Your task to perform on an android device: install app "NewsBreak: Local News & Alerts" Image 0: 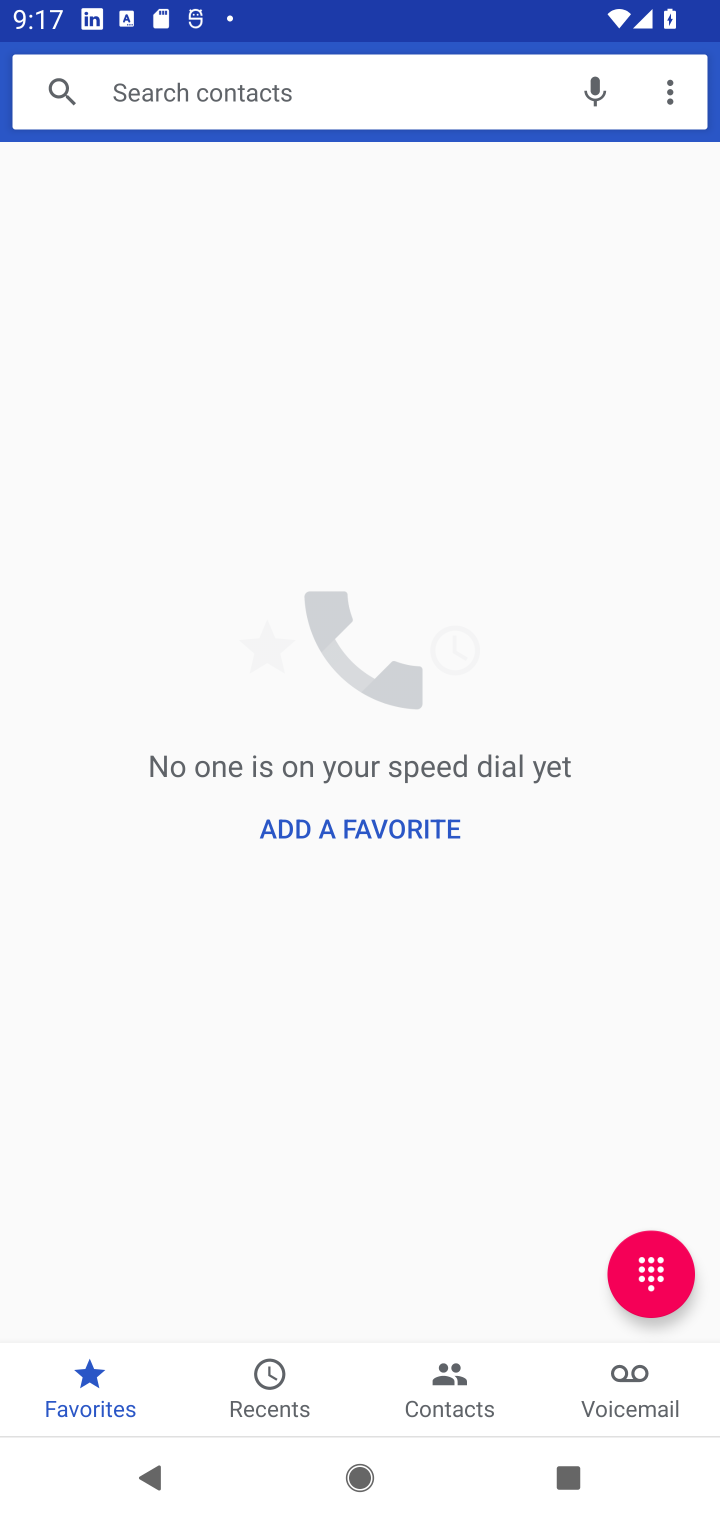
Step 0: press home button
Your task to perform on an android device: install app "NewsBreak: Local News & Alerts" Image 1: 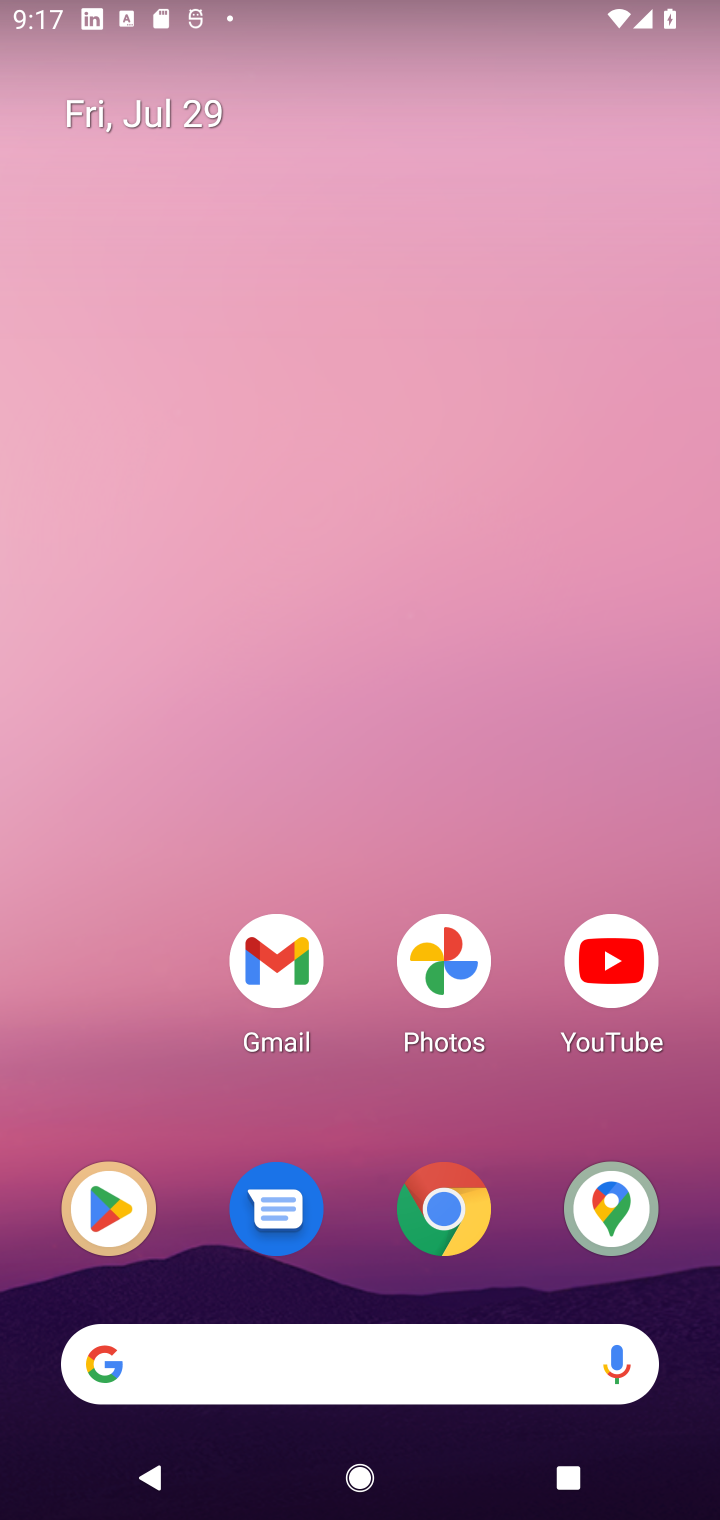
Step 1: click (91, 1234)
Your task to perform on an android device: install app "NewsBreak: Local News & Alerts" Image 2: 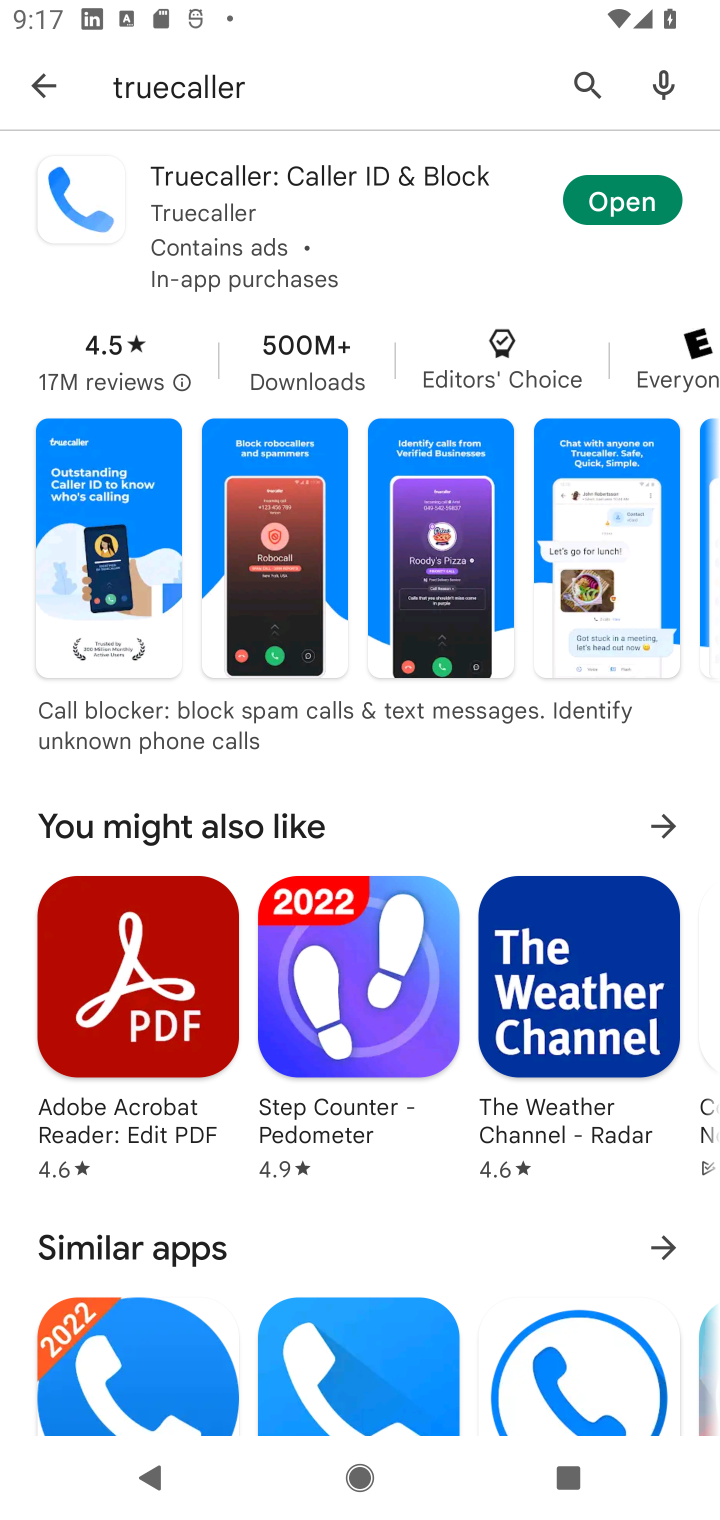
Step 2: click (577, 75)
Your task to perform on an android device: install app "NewsBreak: Local News & Alerts" Image 3: 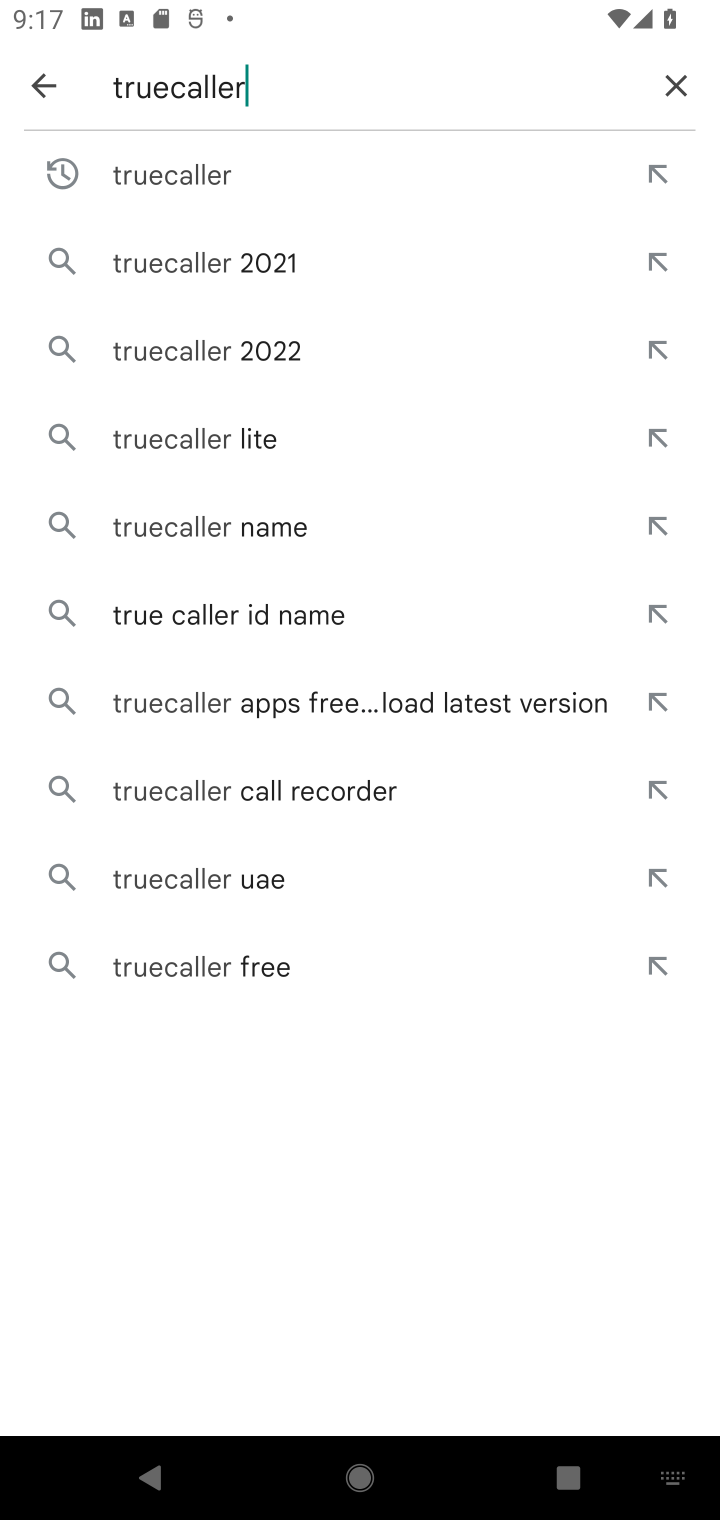
Step 3: click (662, 77)
Your task to perform on an android device: install app "NewsBreak: Local News & Alerts" Image 4: 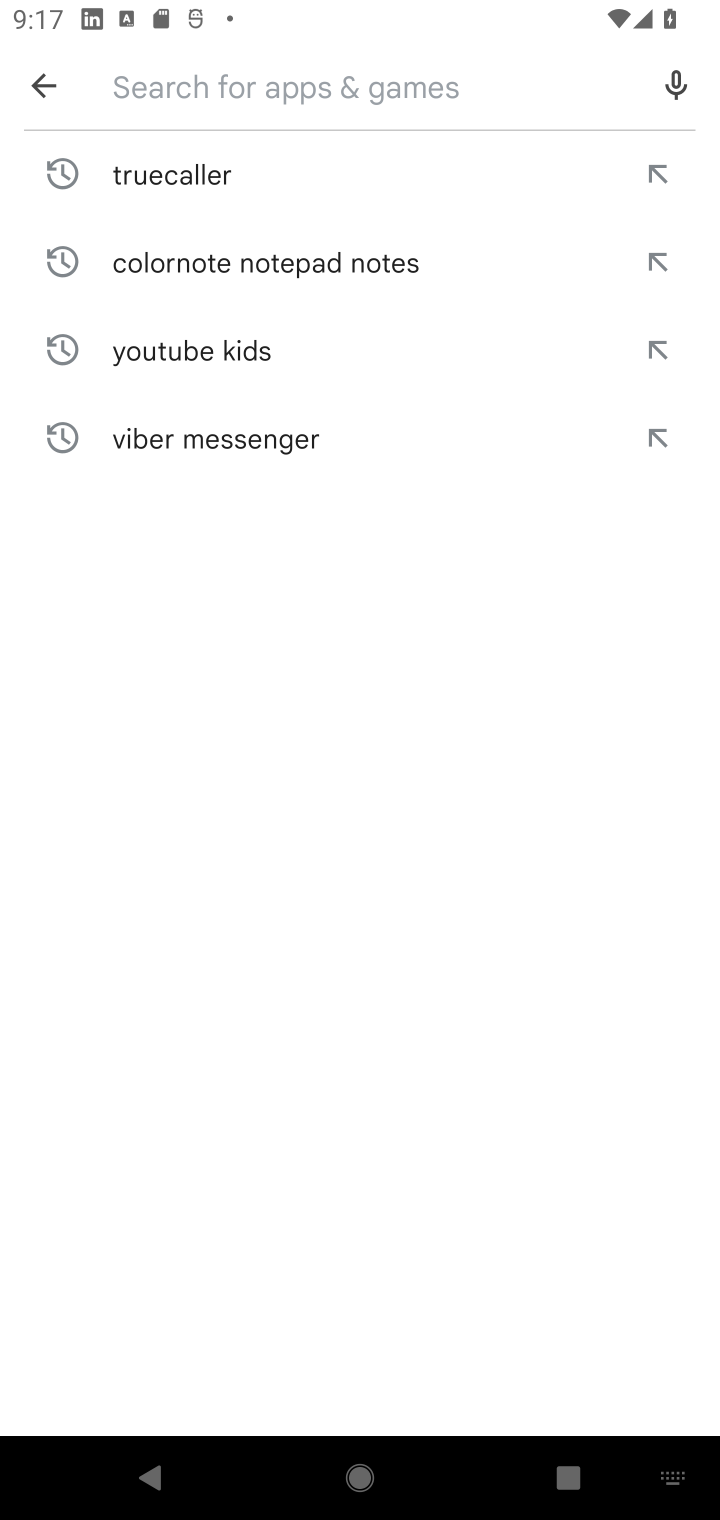
Step 4: type "NewsBreak: Local News & Alerts"
Your task to perform on an android device: install app "NewsBreak: Local News & Alerts" Image 5: 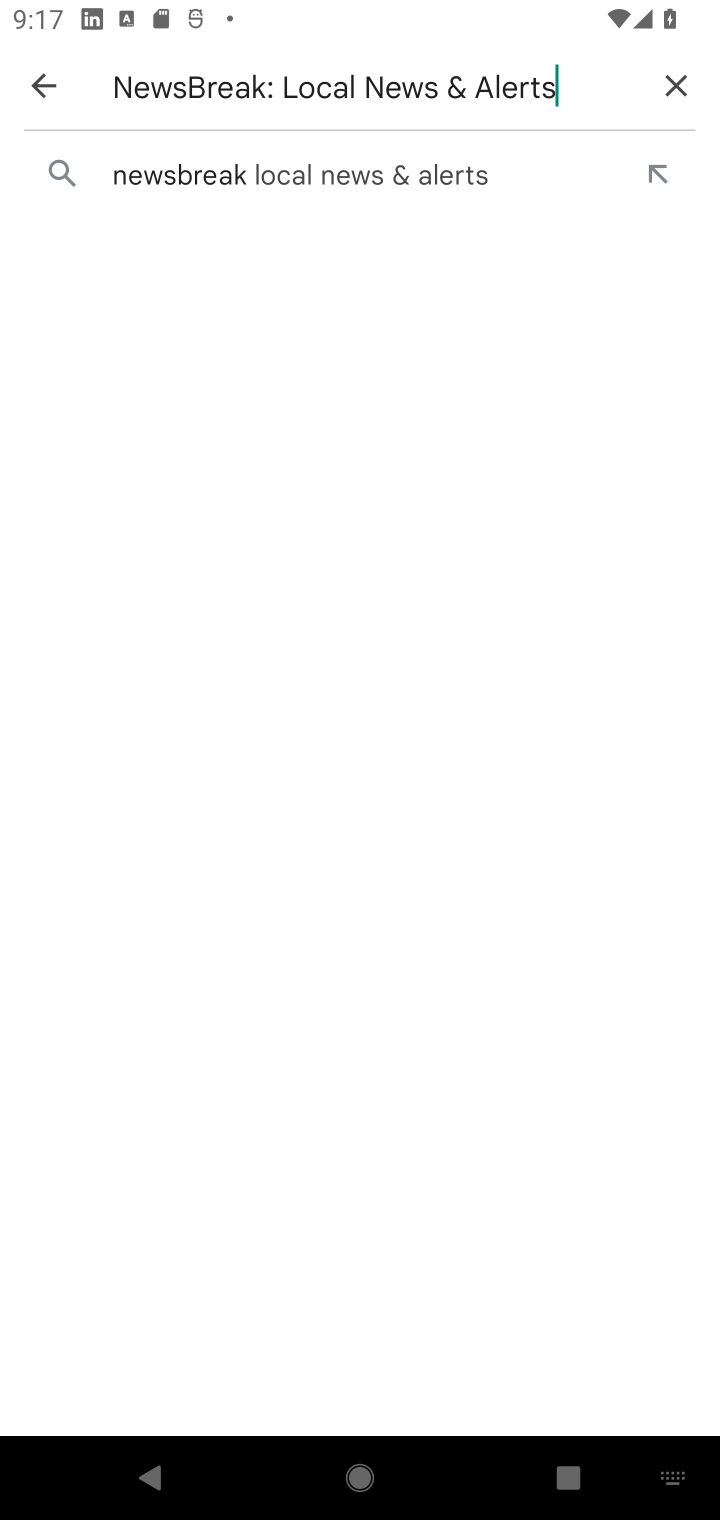
Step 5: click (209, 186)
Your task to perform on an android device: install app "NewsBreak: Local News & Alerts" Image 6: 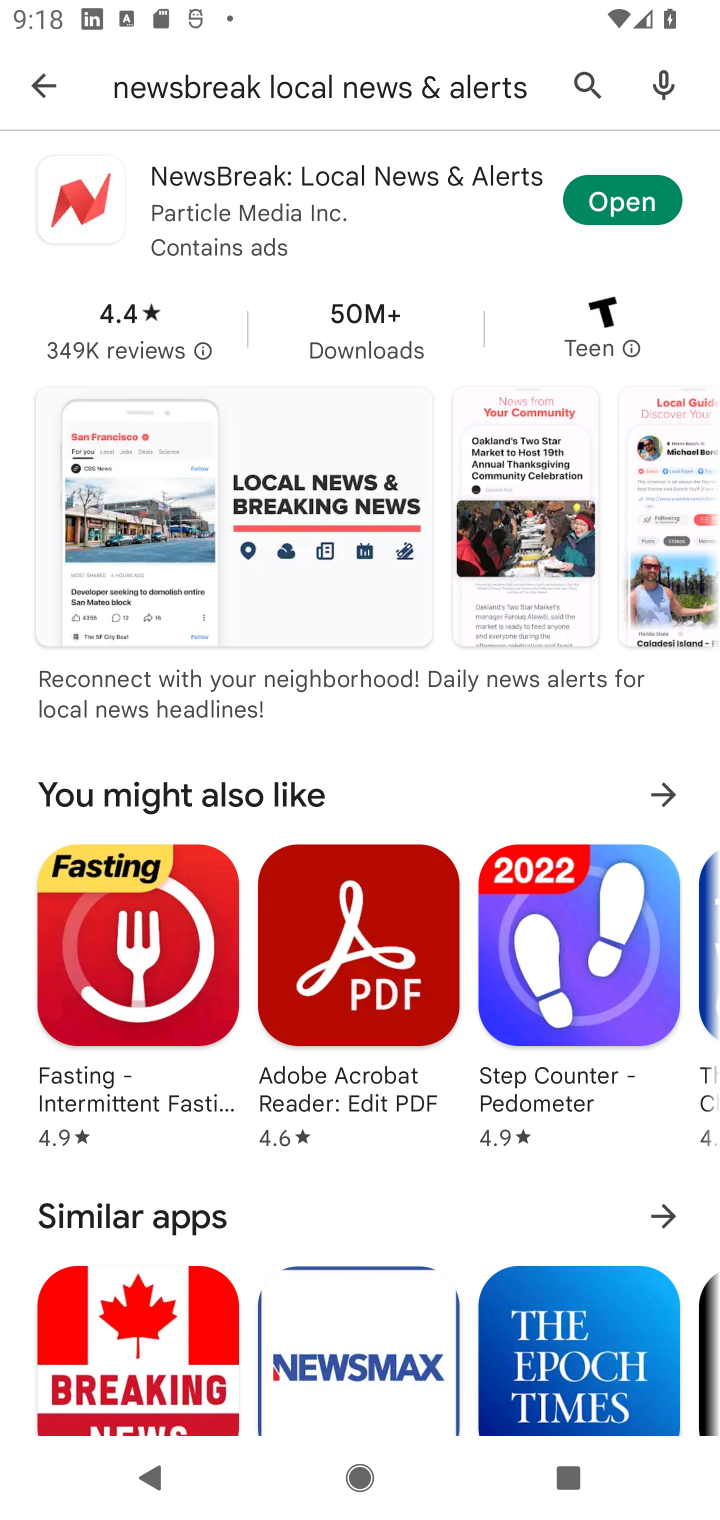
Step 6: task complete